Your task to perform on an android device: Open Google Chrome and click the shortcut for Amazon.com Image 0: 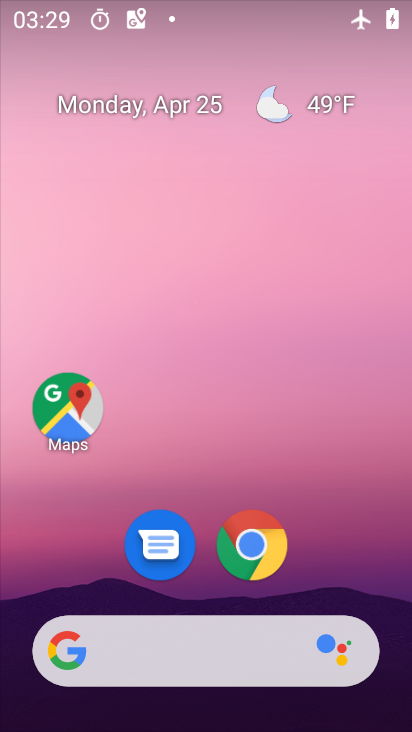
Step 0: click (249, 541)
Your task to perform on an android device: Open Google Chrome and click the shortcut for Amazon.com Image 1: 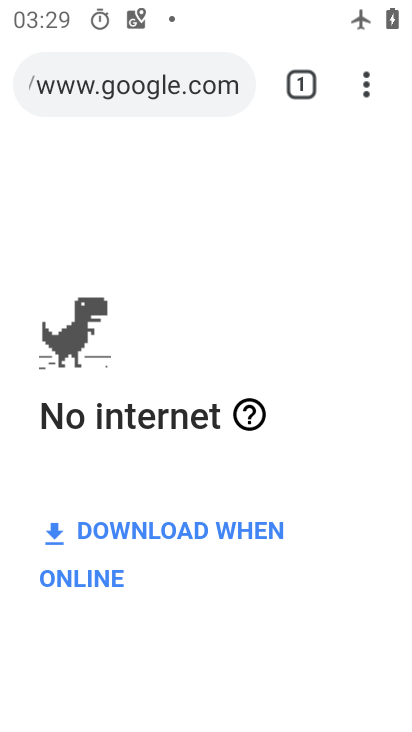
Step 1: click (182, 66)
Your task to perform on an android device: Open Google Chrome and click the shortcut for Amazon.com Image 2: 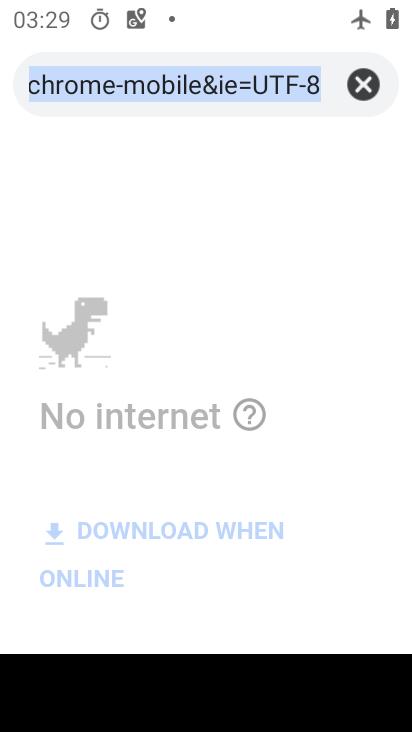
Step 2: click (370, 74)
Your task to perform on an android device: Open Google Chrome and click the shortcut for Amazon.com Image 3: 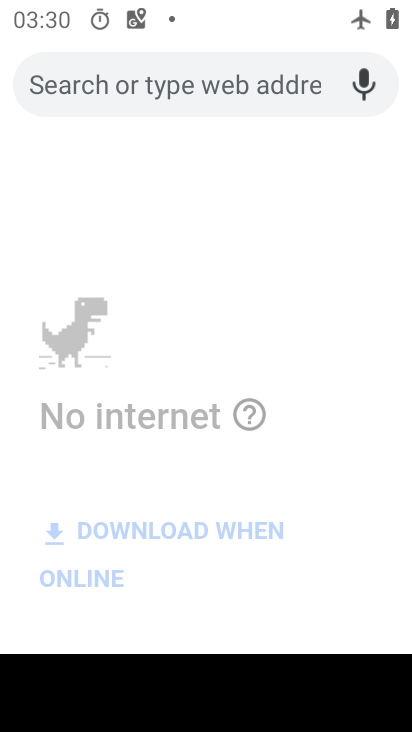
Step 3: type "Amazon.com"
Your task to perform on an android device: Open Google Chrome and click the shortcut for Amazon.com Image 4: 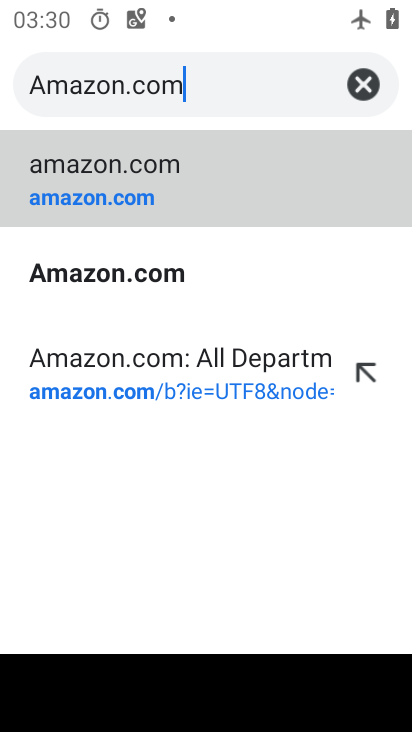
Step 4: type ""
Your task to perform on an android device: Open Google Chrome and click the shortcut for Amazon.com Image 5: 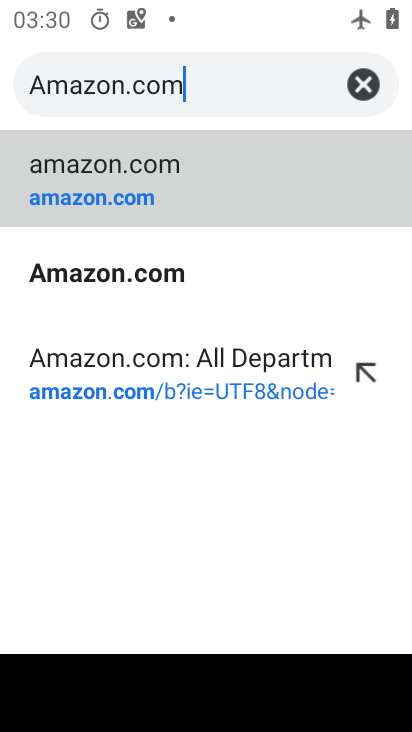
Step 5: click (90, 274)
Your task to perform on an android device: Open Google Chrome and click the shortcut for Amazon.com Image 6: 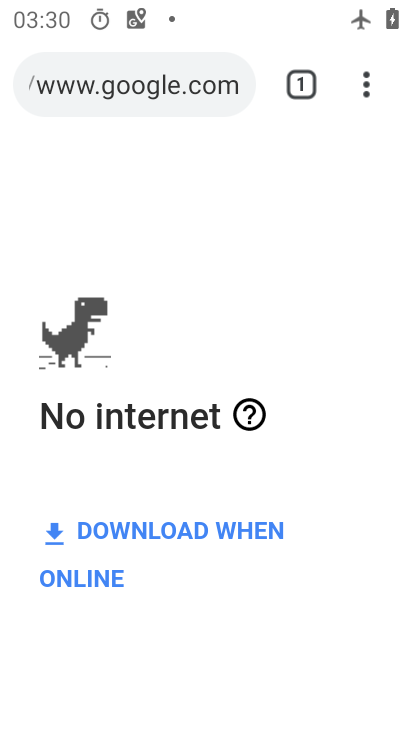
Step 6: press home button
Your task to perform on an android device: Open Google Chrome and click the shortcut for Amazon.com Image 7: 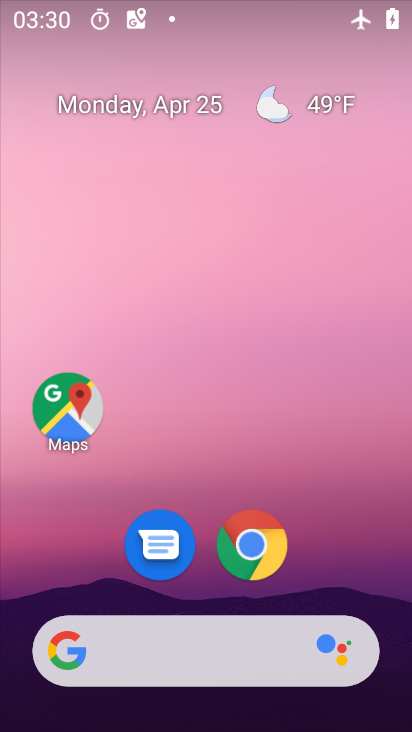
Step 7: drag from (222, 457) to (209, 113)
Your task to perform on an android device: Open Google Chrome and click the shortcut for Amazon.com Image 8: 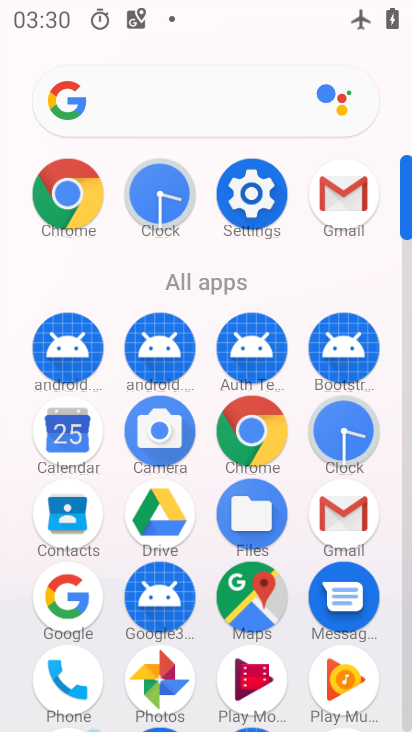
Step 8: click (60, 190)
Your task to perform on an android device: Open Google Chrome and click the shortcut for Amazon.com Image 9: 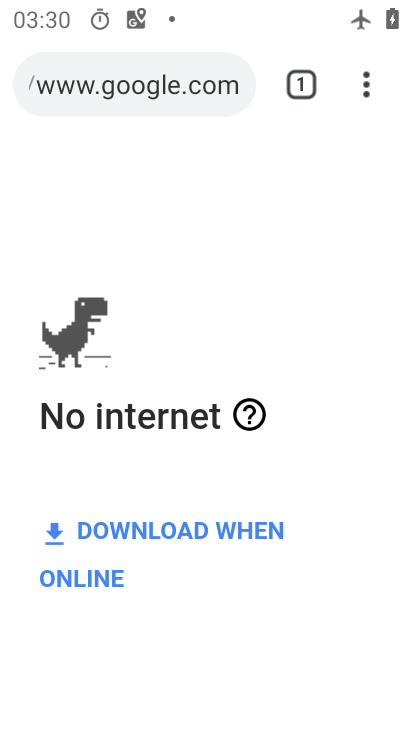
Step 9: click (164, 80)
Your task to perform on an android device: Open Google Chrome and click the shortcut for Amazon.com Image 10: 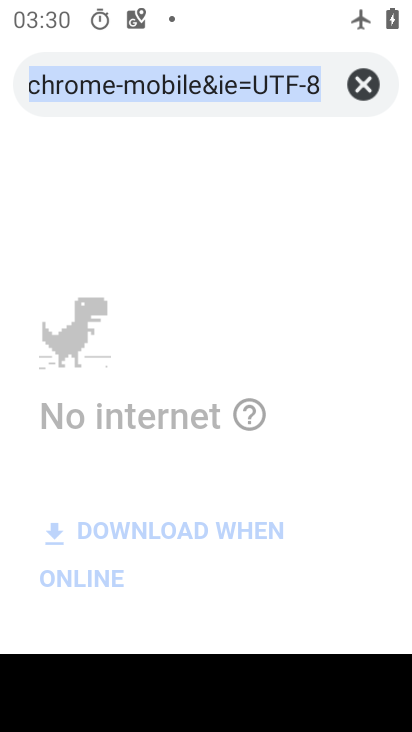
Step 10: click (373, 82)
Your task to perform on an android device: Open Google Chrome and click the shortcut for Amazon.com Image 11: 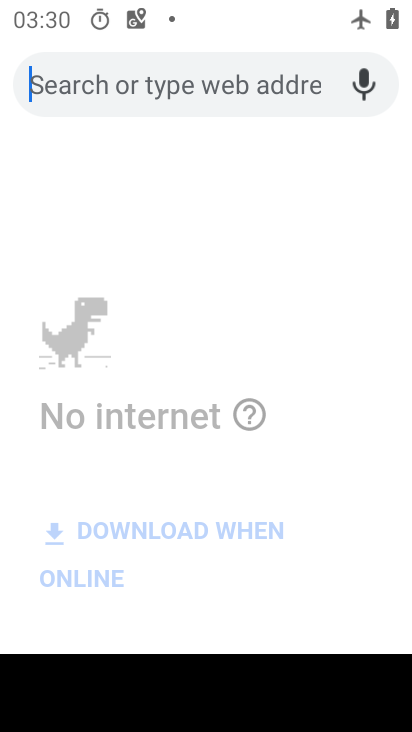
Step 11: type "Amazon.com"
Your task to perform on an android device: Open Google Chrome and click the shortcut for Amazon.com Image 12: 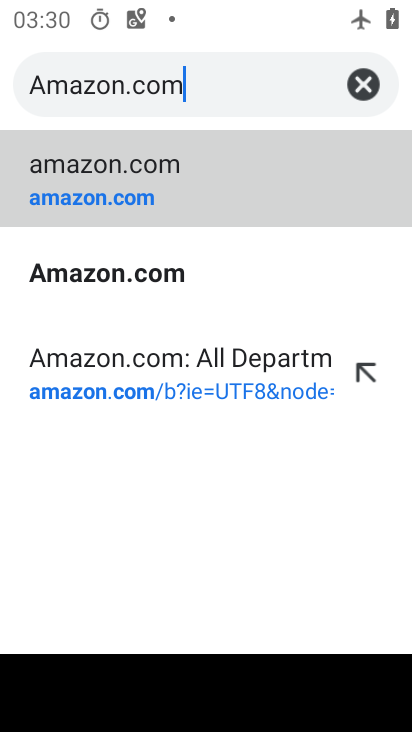
Step 12: type ""
Your task to perform on an android device: Open Google Chrome and click the shortcut for Amazon.com Image 13: 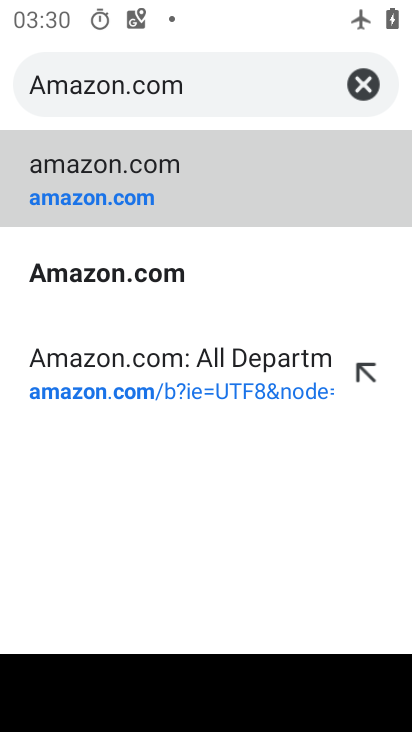
Step 13: click (137, 265)
Your task to perform on an android device: Open Google Chrome and click the shortcut for Amazon.com Image 14: 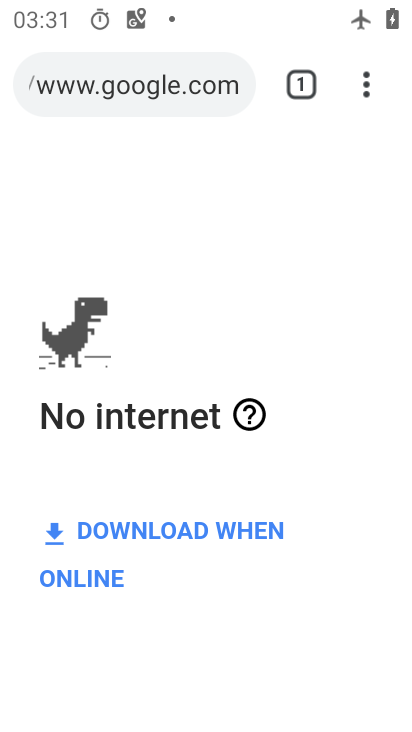
Step 14: task complete